Your task to perform on an android device: Search for sushi restaurants on Maps Image 0: 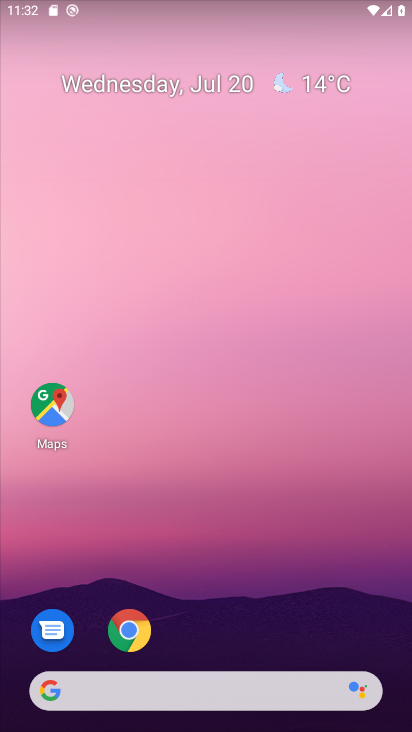
Step 0: click (55, 407)
Your task to perform on an android device: Search for sushi restaurants on Maps Image 1: 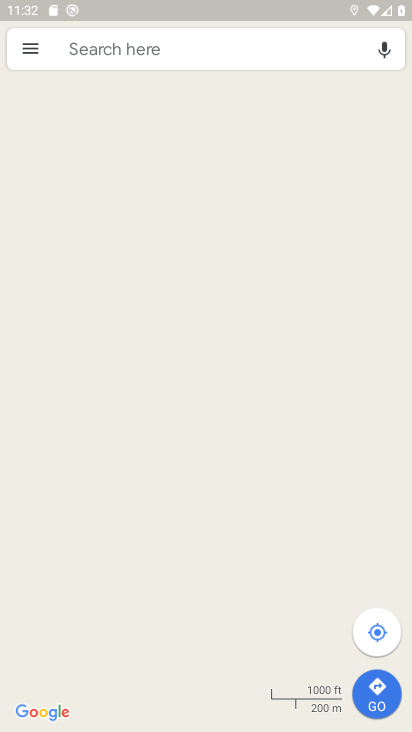
Step 1: click (162, 64)
Your task to perform on an android device: Search for sushi restaurants on Maps Image 2: 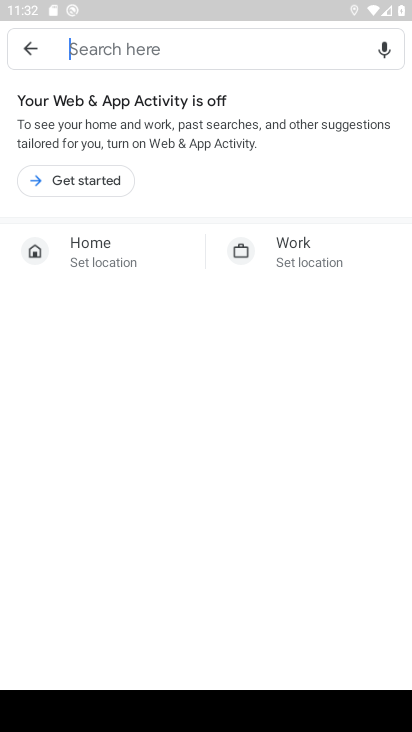
Step 2: click (98, 167)
Your task to perform on an android device: Search for sushi restaurants on Maps Image 3: 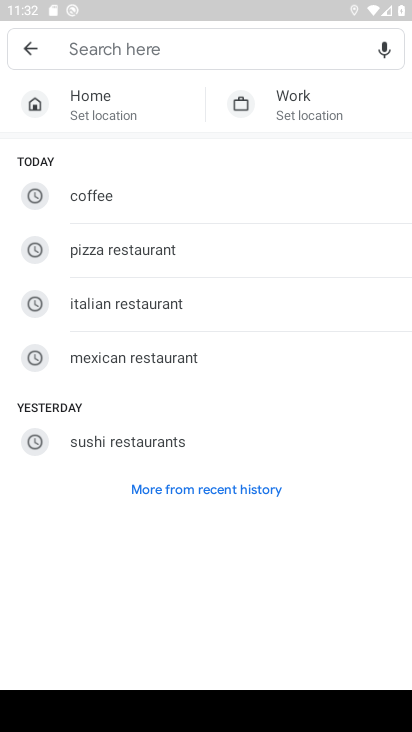
Step 3: click (106, 450)
Your task to perform on an android device: Search for sushi restaurants on Maps Image 4: 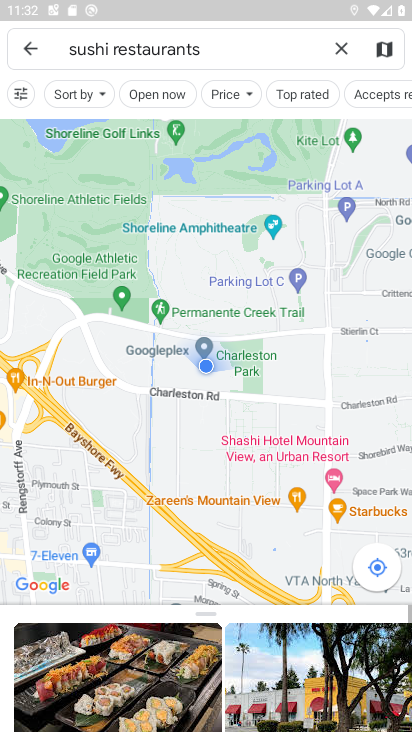
Step 4: task complete